Your task to perform on an android device: find photos in the google photos app Image 0: 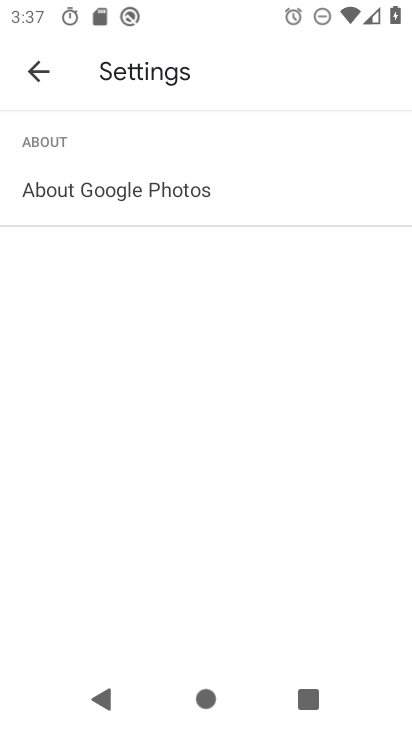
Step 0: press home button
Your task to perform on an android device: find photos in the google photos app Image 1: 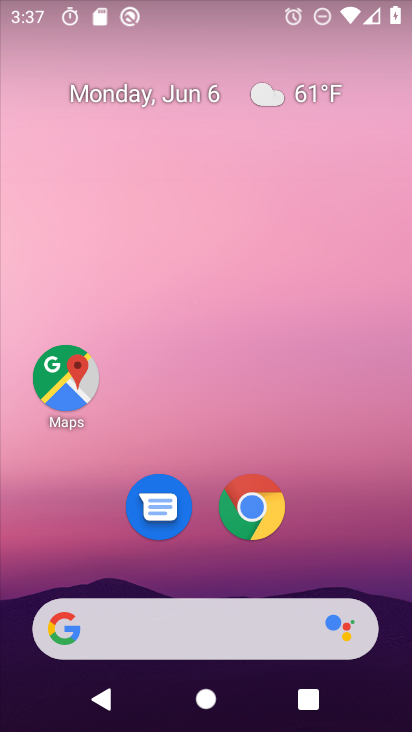
Step 1: drag from (199, 580) to (218, 145)
Your task to perform on an android device: find photos in the google photos app Image 2: 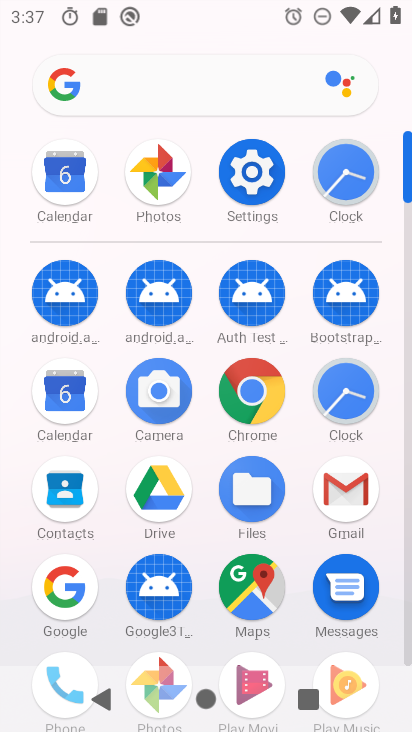
Step 2: click (153, 195)
Your task to perform on an android device: find photos in the google photos app Image 3: 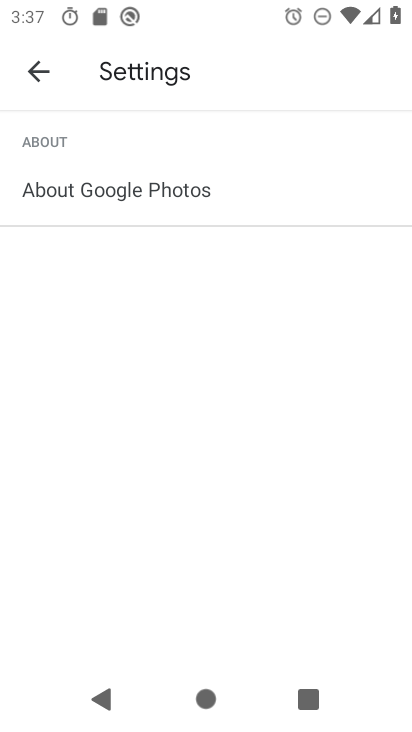
Step 3: click (44, 68)
Your task to perform on an android device: find photos in the google photos app Image 4: 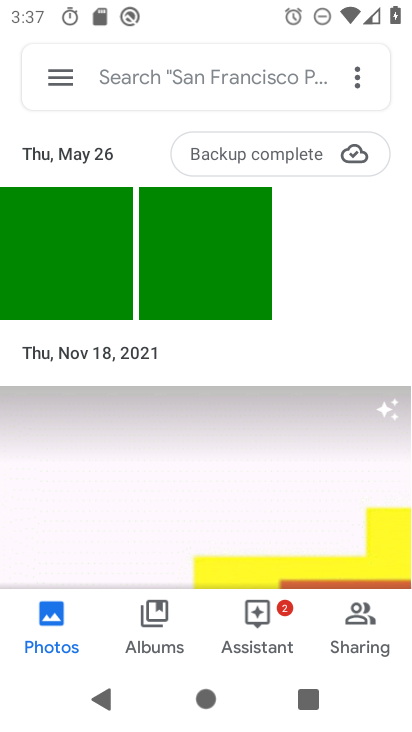
Step 4: click (143, 80)
Your task to perform on an android device: find photos in the google photos app Image 5: 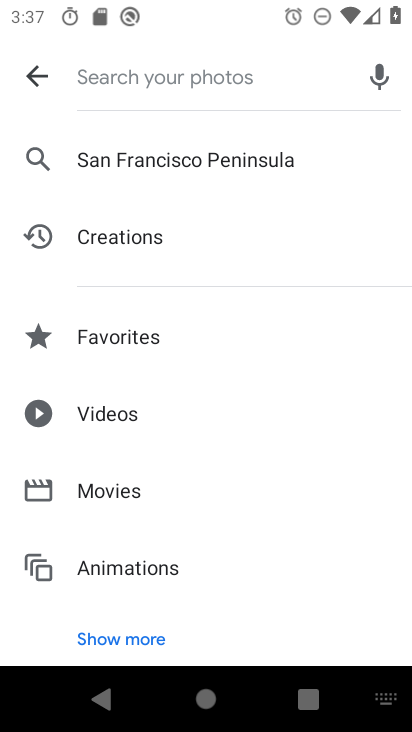
Step 5: type "aa"
Your task to perform on an android device: find photos in the google photos app Image 6: 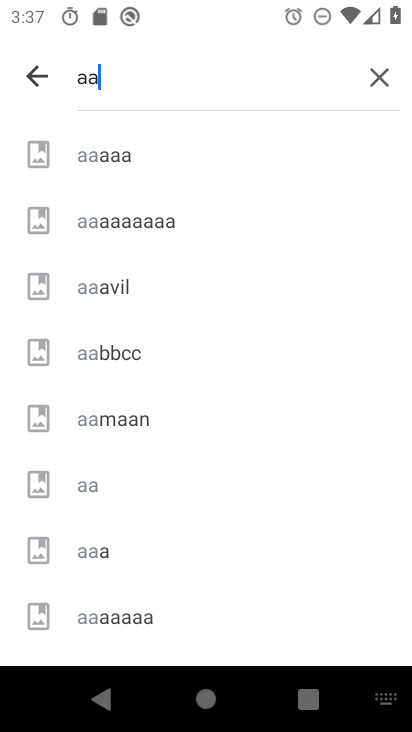
Step 6: click (136, 162)
Your task to perform on an android device: find photos in the google photos app Image 7: 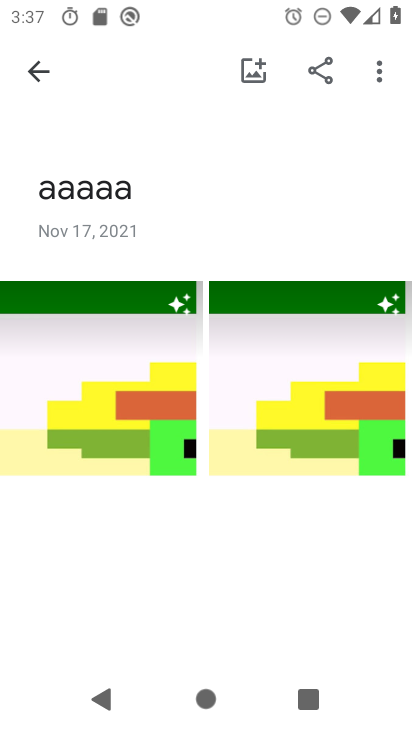
Step 7: task complete